Your task to perform on an android device: Open the calendar and show me this week's events? Image 0: 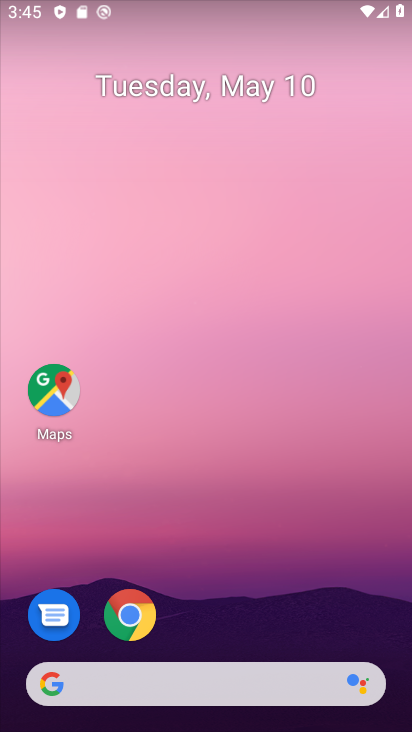
Step 0: drag from (203, 727) to (185, 189)
Your task to perform on an android device: Open the calendar and show me this week's events? Image 1: 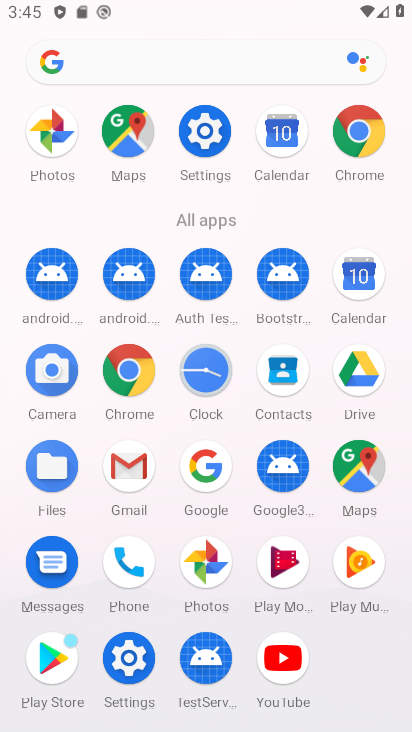
Step 1: click (353, 276)
Your task to perform on an android device: Open the calendar and show me this week's events? Image 2: 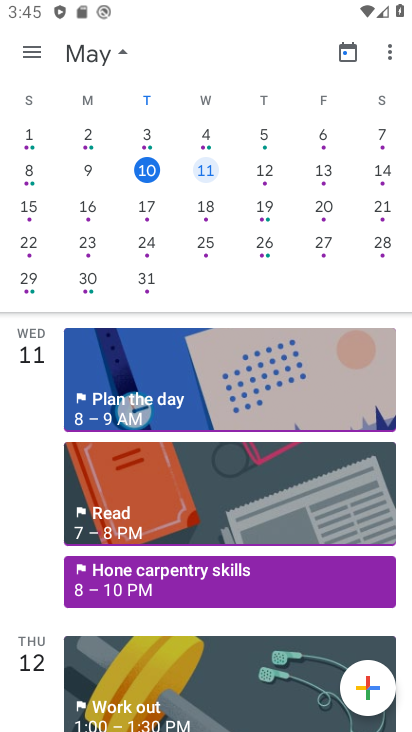
Step 2: click (30, 52)
Your task to perform on an android device: Open the calendar and show me this week's events? Image 3: 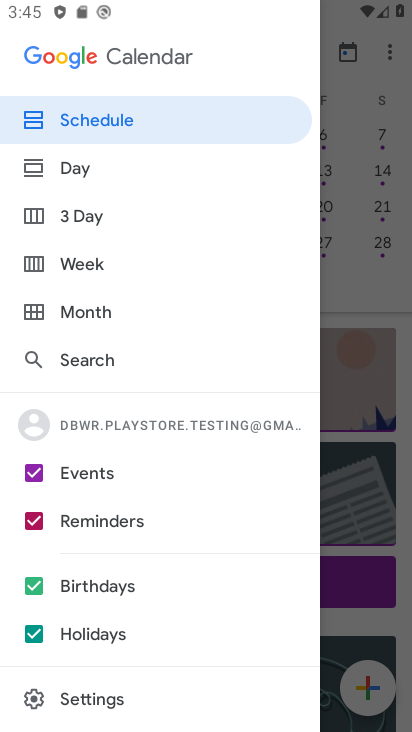
Step 3: click (34, 633)
Your task to perform on an android device: Open the calendar and show me this week's events? Image 4: 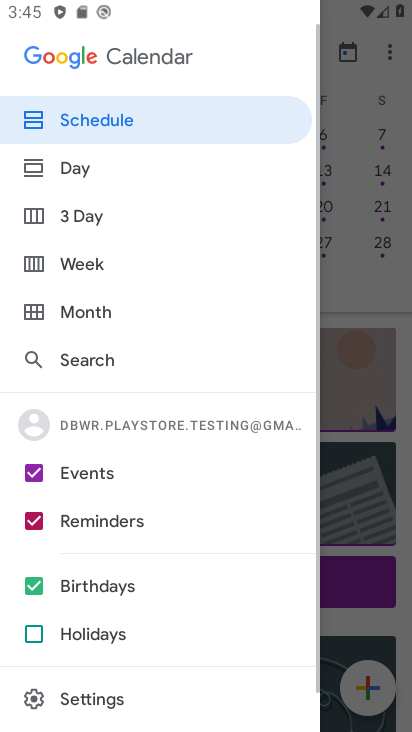
Step 4: click (30, 580)
Your task to perform on an android device: Open the calendar and show me this week's events? Image 5: 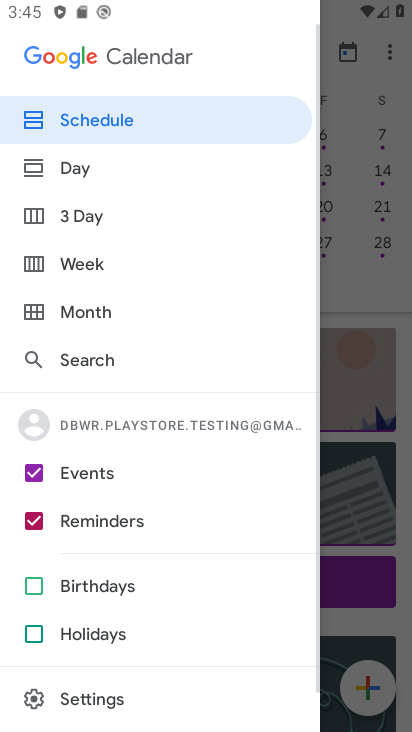
Step 5: click (34, 523)
Your task to perform on an android device: Open the calendar and show me this week's events? Image 6: 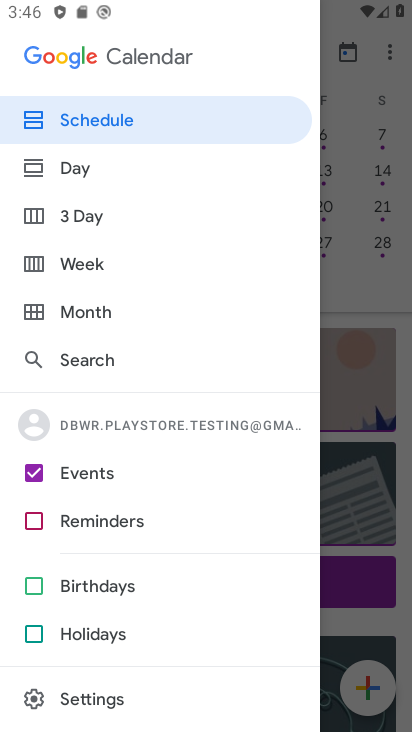
Step 6: click (85, 263)
Your task to perform on an android device: Open the calendar and show me this week's events? Image 7: 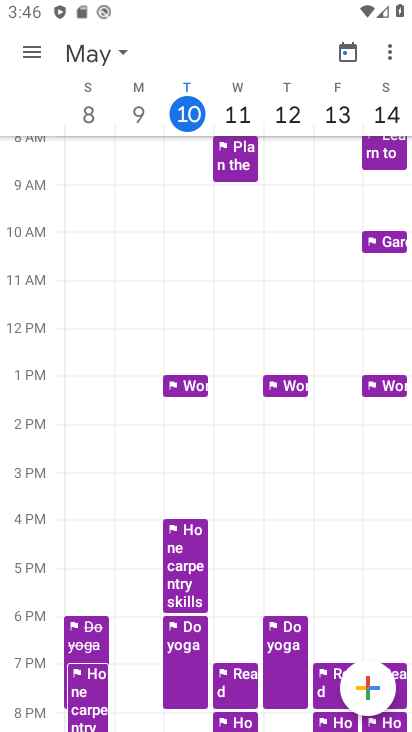
Step 7: task complete